Your task to perform on an android device: Open calendar and show me the second week of next month Image 0: 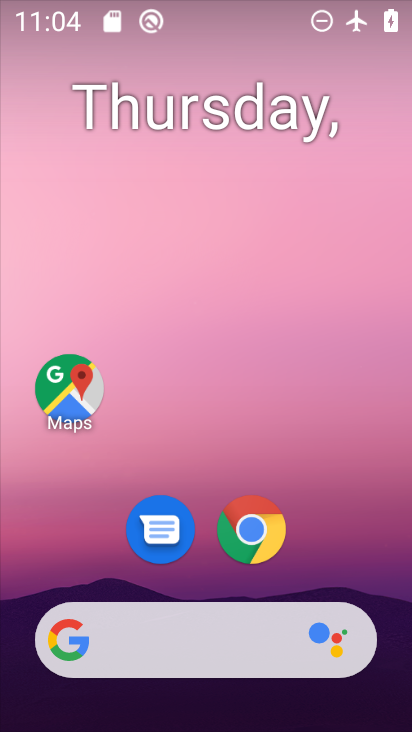
Step 0: drag from (162, 724) to (389, 18)
Your task to perform on an android device: Open calendar and show me the second week of next month Image 1: 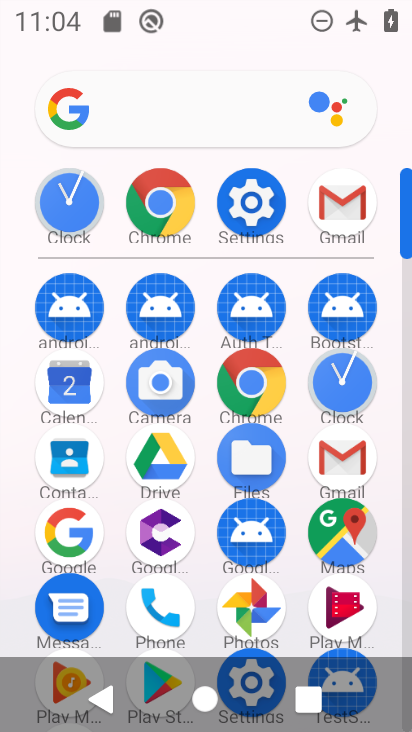
Step 1: click (83, 397)
Your task to perform on an android device: Open calendar and show me the second week of next month Image 2: 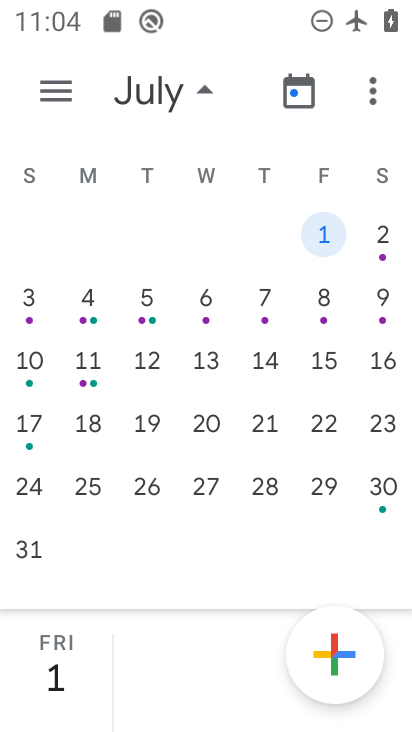
Step 2: click (28, 296)
Your task to perform on an android device: Open calendar and show me the second week of next month Image 3: 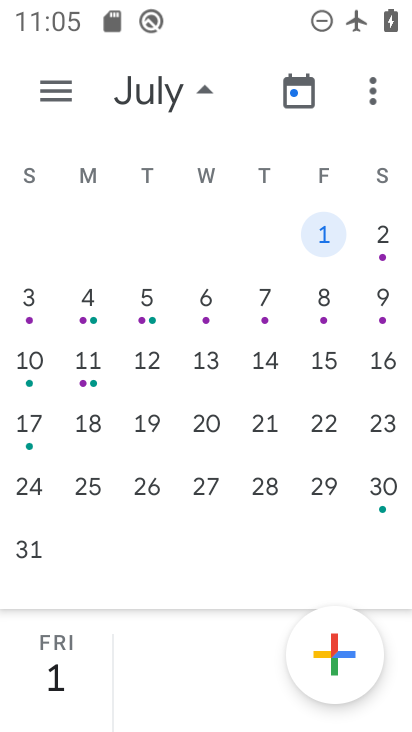
Step 3: click (28, 296)
Your task to perform on an android device: Open calendar and show me the second week of next month Image 4: 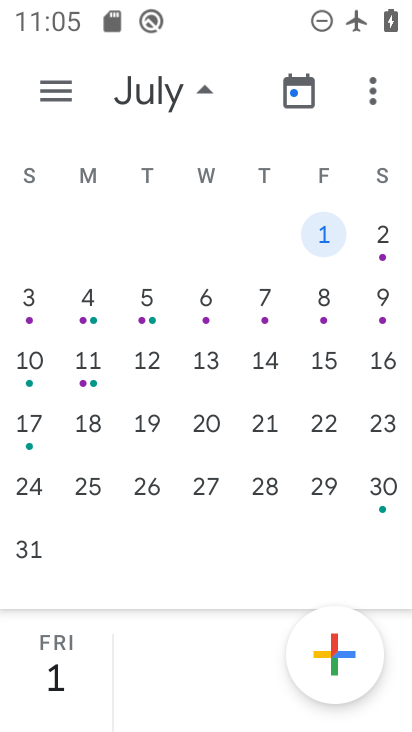
Step 4: click (34, 312)
Your task to perform on an android device: Open calendar and show me the second week of next month Image 5: 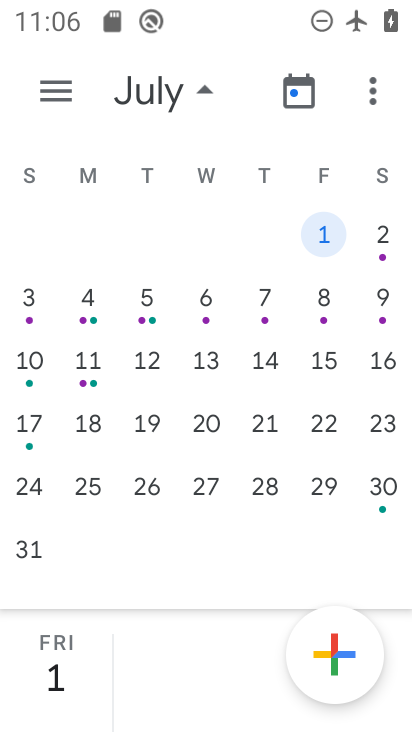
Step 5: click (25, 296)
Your task to perform on an android device: Open calendar and show me the second week of next month Image 6: 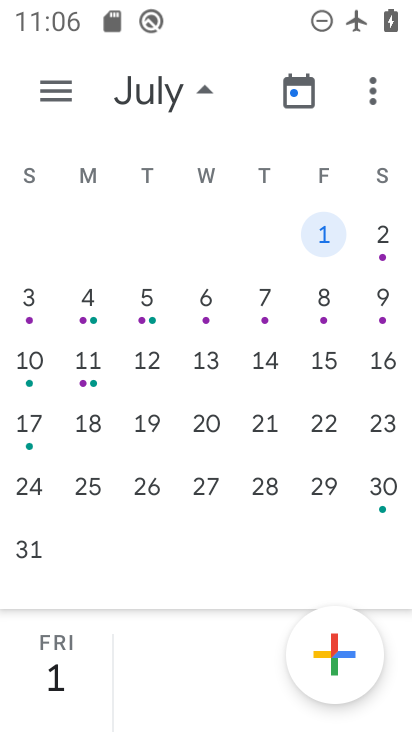
Step 6: click (37, 301)
Your task to perform on an android device: Open calendar and show me the second week of next month Image 7: 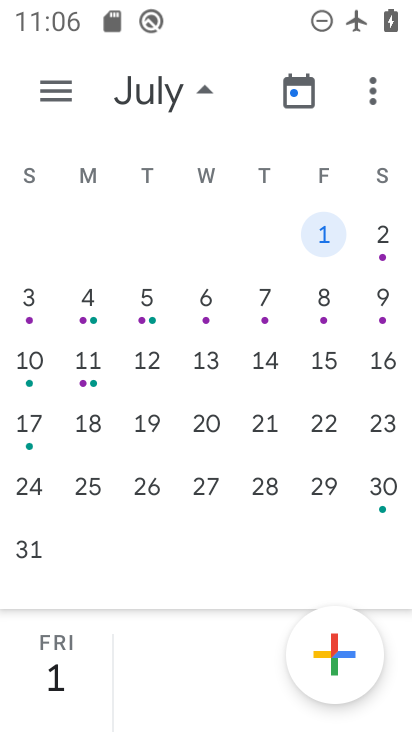
Step 7: click (37, 301)
Your task to perform on an android device: Open calendar and show me the second week of next month Image 8: 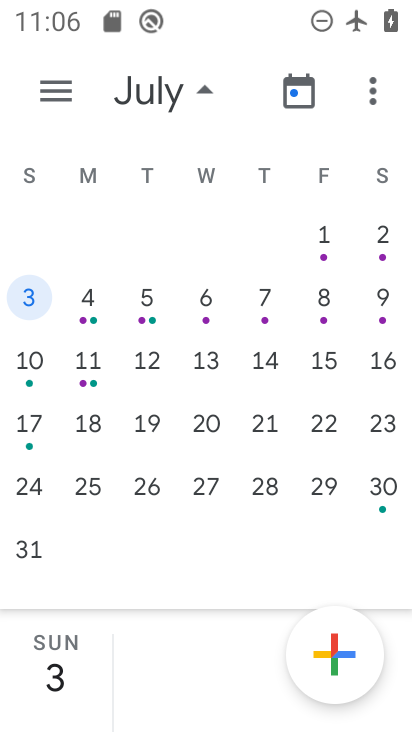
Step 8: task complete